Your task to perform on an android device: search for starred emails in the gmail app Image 0: 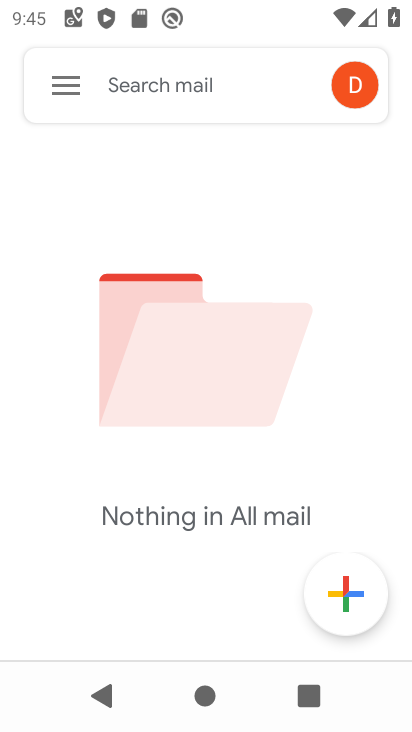
Step 0: press home button
Your task to perform on an android device: search for starred emails in the gmail app Image 1: 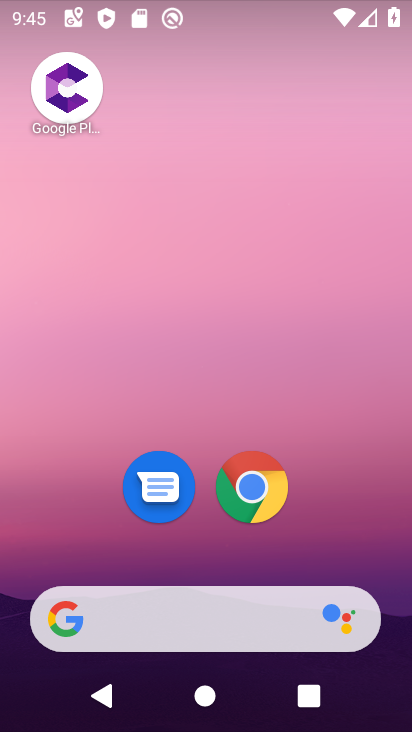
Step 1: drag from (364, 545) to (319, 158)
Your task to perform on an android device: search for starred emails in the gmail app Image 2: 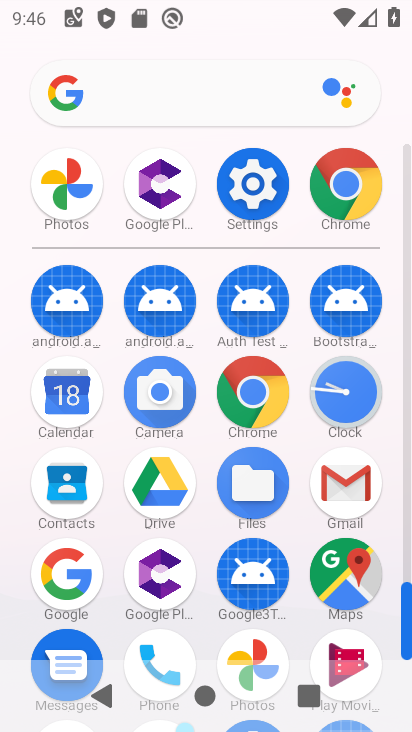
Step 2: click (343, 478)
Your task to perform on an android device: search for starred emails in the gmail app Image 3: 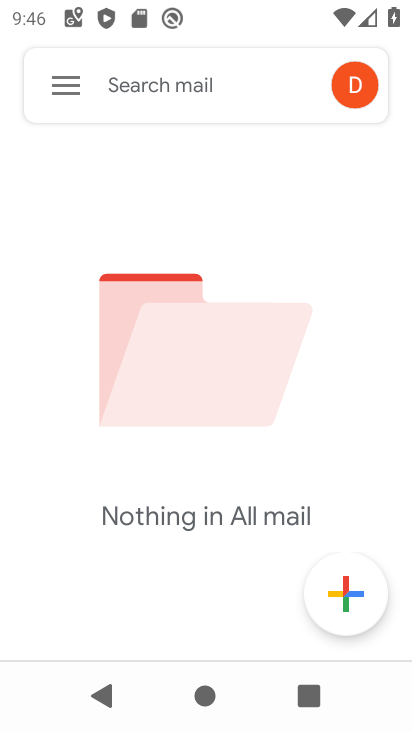
Step 3: click (63, 85)
Your task to perform on an android device: search for starred emails in the gmail app Image 4: 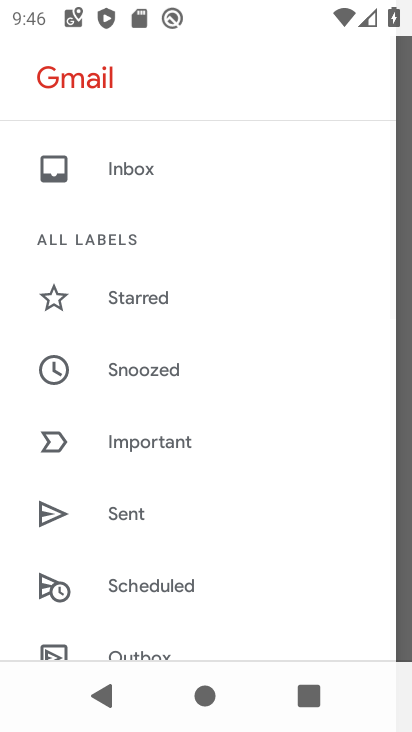
Step 4: click (153, 300)
Your task to perform on an android device: search for starred emails in the gmail app Image 5: 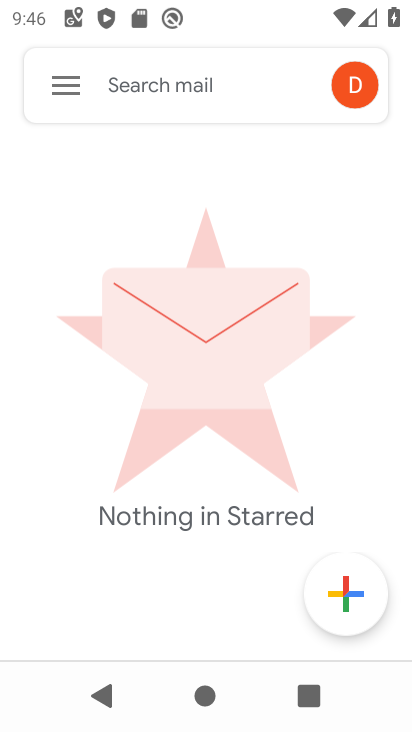
Step 5: task complete